Your task to perform on an android device: change the clock display to digital Image 0: 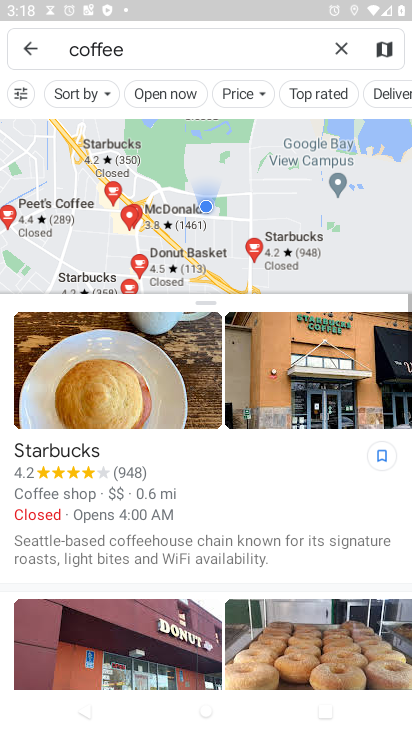
Step 0: click (340, 47)
Your task to perform on an android device: change the clock display to digital Image 1: 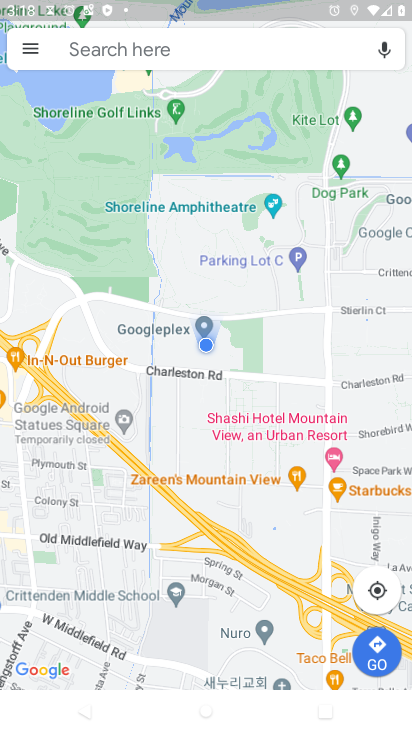
Step 1: press back button
Your task to perform on an android device: change the clock display to digital Image 2: 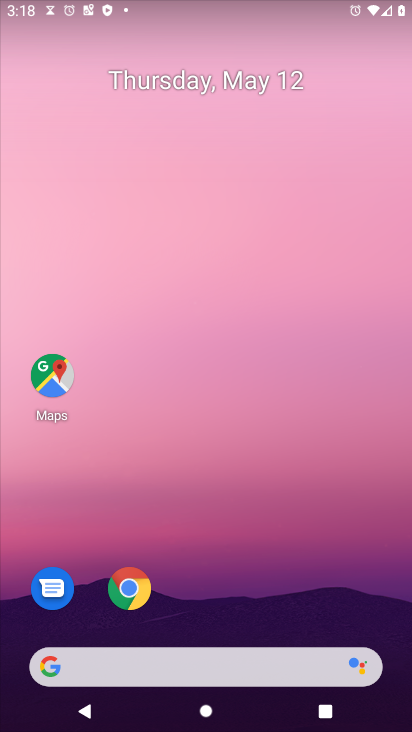
Step 2: drag from (208, 590) to (199, 21)
Your task to perform on an android device: change the clock display to digital Image 3: 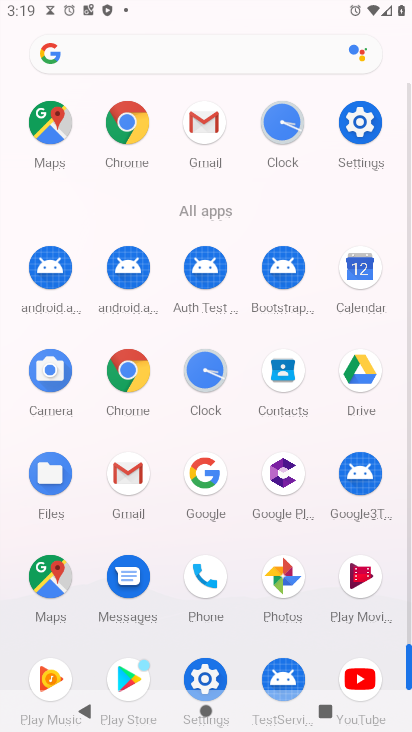
Step 3: click (198, 370)
Your task to perform on an android device: change the clock display to digital Image 4: 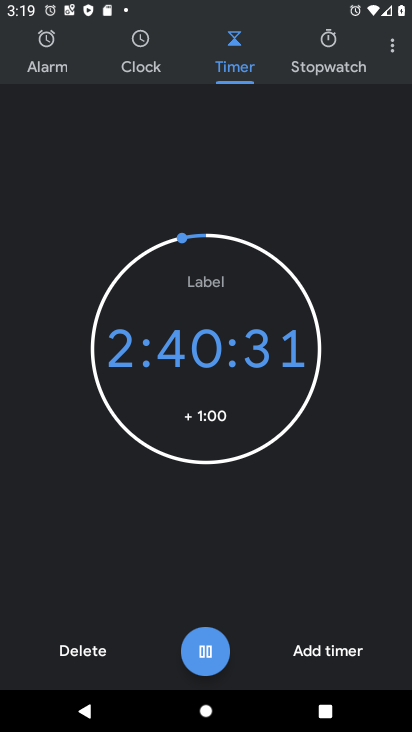
Step 4: drag from (390, 43) to (332, 99)
Your task to perform on an android device: change the clock display to digital Image 5: 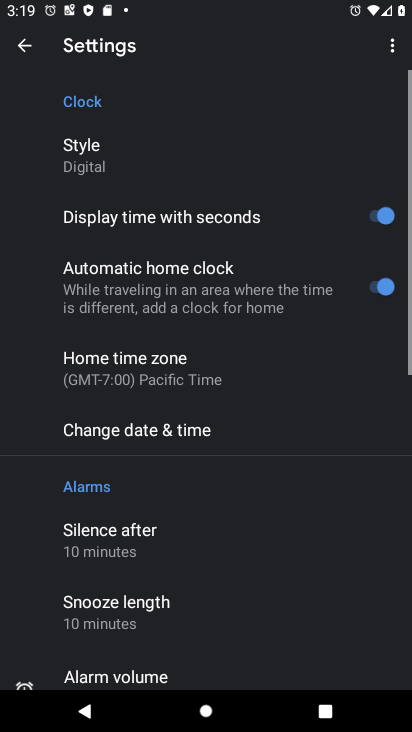
Step 5: drag from (243, 601) to (228, 139)
Your task to perform on an android device: change the clock display to digital Image 6: 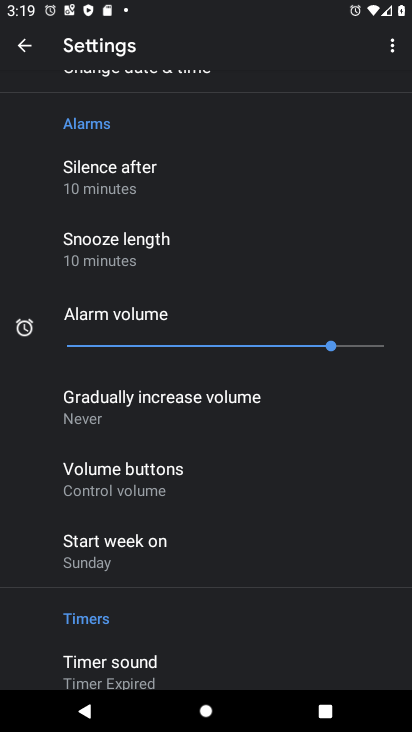
Step 6: drag from (199, 538) to (216, 164)
Your task to perform on an android device: change the clock display to digital Image 7: 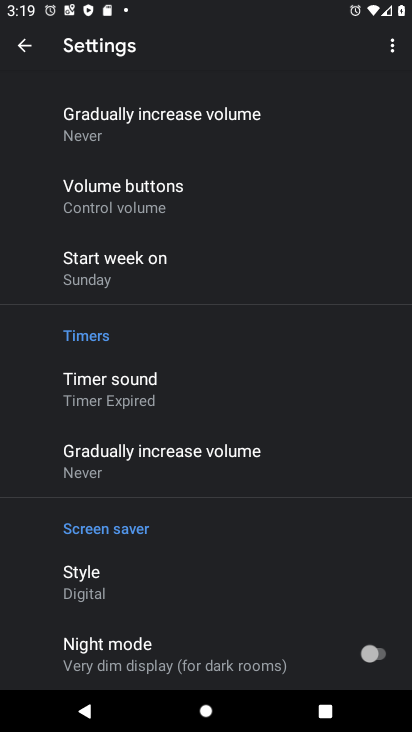
Step 7: drag from (240, 177) to (235, 600)
Your task to perform on an android device: change the clock display to digital Image 8: 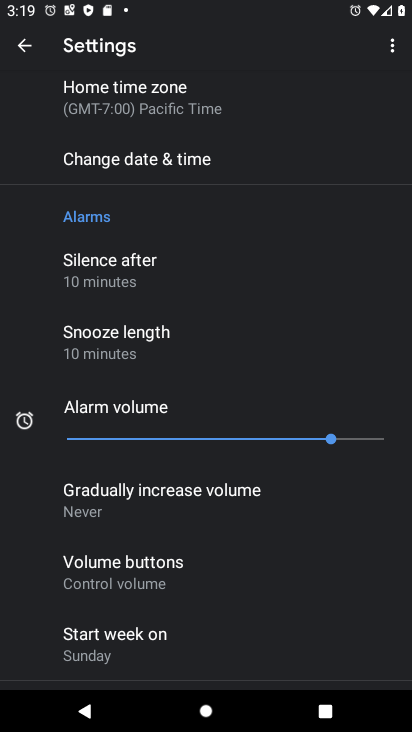
Step 8: drag from (198, 211) to (193, 630)
Your task to perform on an android device: change the clock display to digital Image 9: 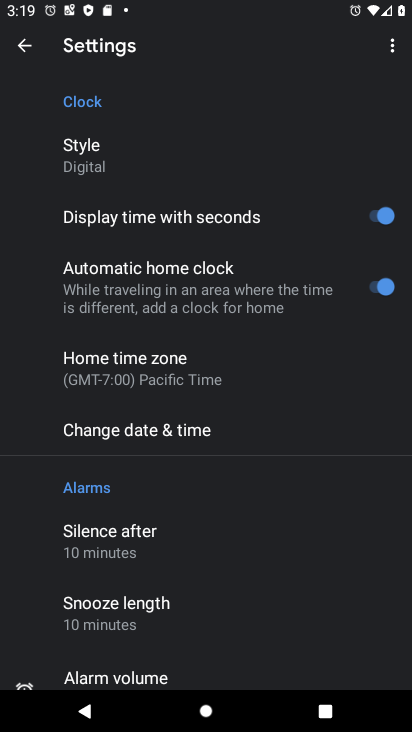
Step 9: click (145, 160)
Your task to perform on an android device: change the clock display to digital Image 10: 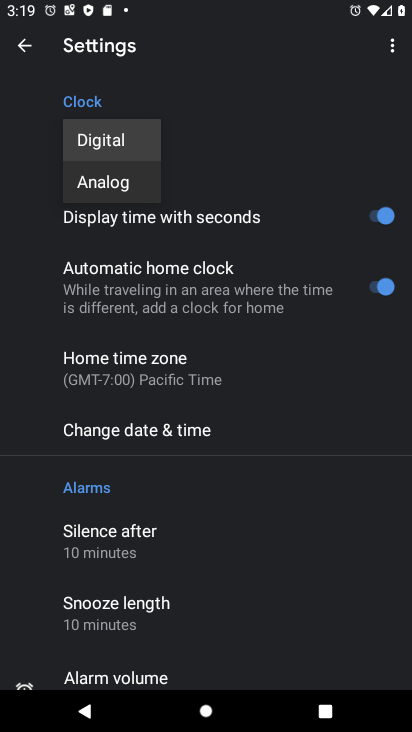
Step 10: click (140, 145)
Your task to perform on an android device: change the clock display to digital Image 11: 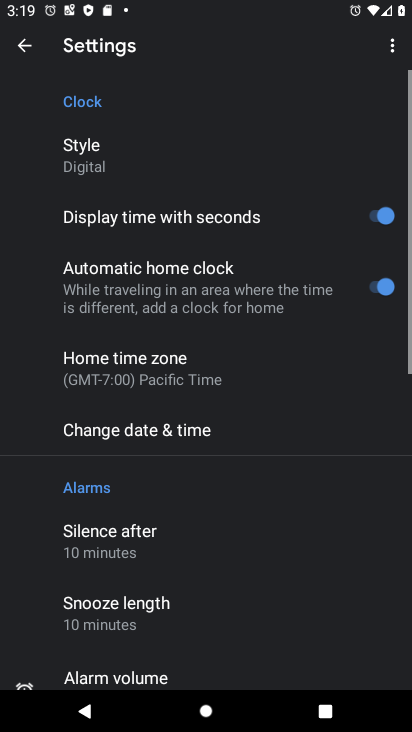
Step 11: task complete